Your task to perform on an android device: open device folders in google photos Image 0: 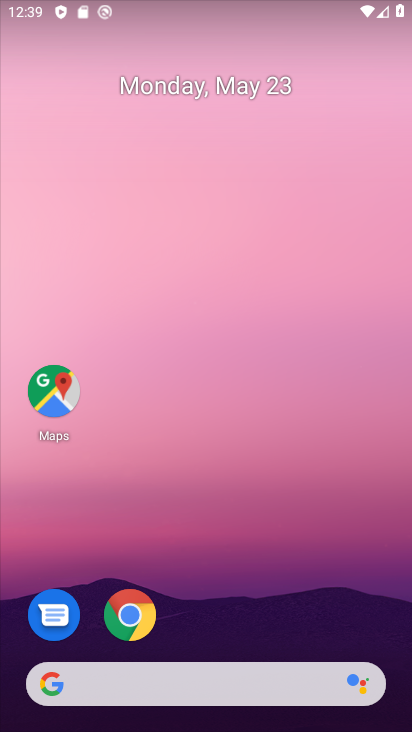
Step 0: drag from (194, 725) to (175, 2)
Your task to perform on an android device: open device folders in google photos Image 1: 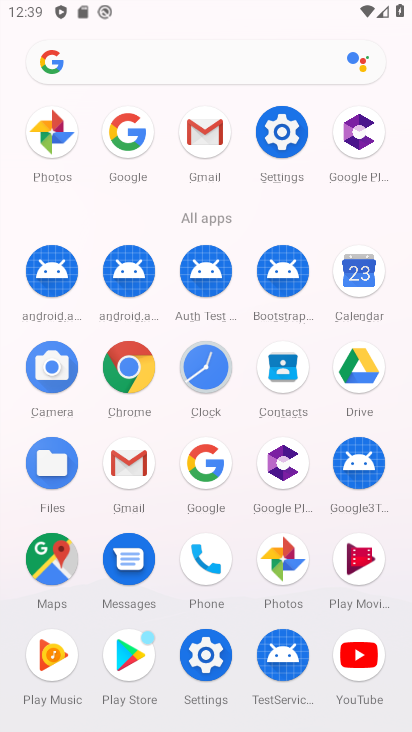
Step 1: click (278, 558)
Your task to perform on an android device: open device folders in google photos Image 2: 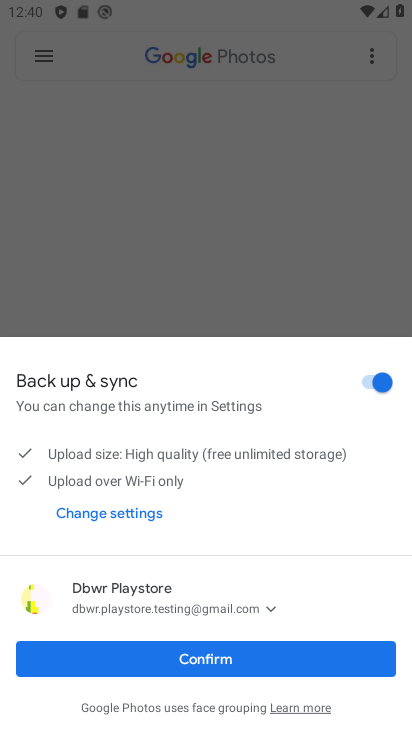
Step 2: click (194, 652)
Your task to perform on an android device: open device folders in google photos Image 3: 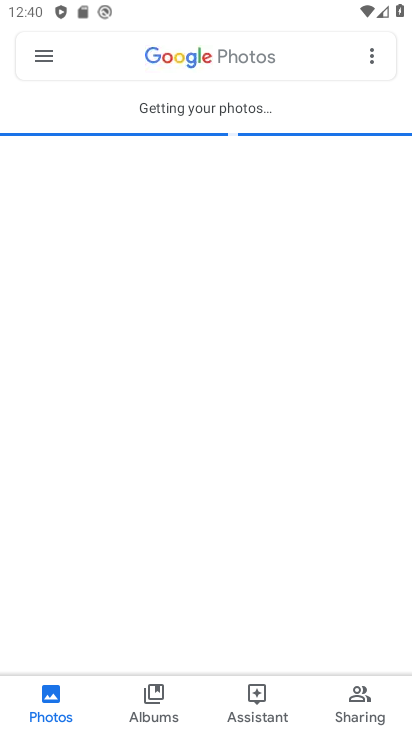
Step 3: click (41, 50)
Your task to perform on an android device: open device folders in google photos Image 4: 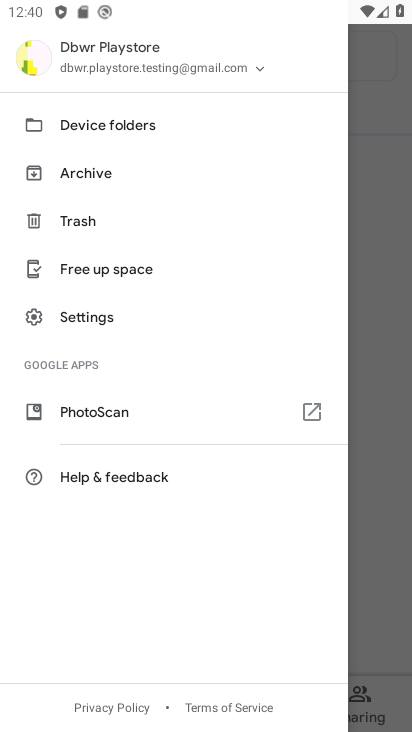
Step 4: click (110, 118)
Your task to perform on an android device: open device folders in google photos Image 5: 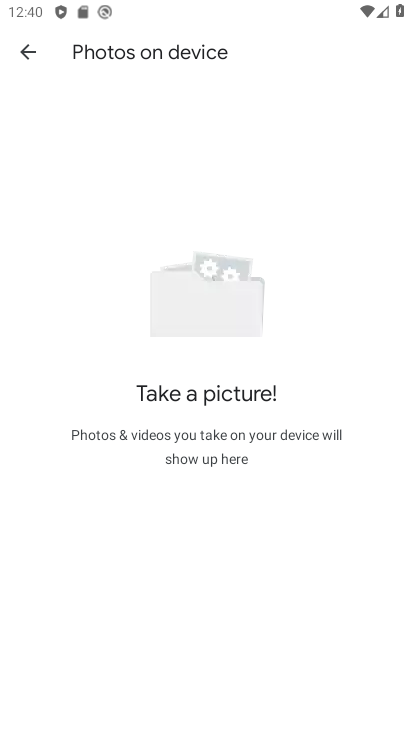
Step 5: task complete